Your task to perform on an android device: allow cookies in the chrome app Image 0: 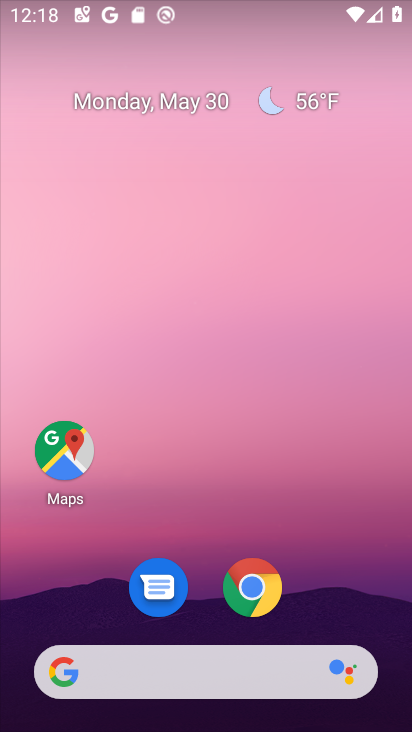
Step 0: click (243, 568)
Your task to perform on an android device: allow cookies in the chrome app Image 1: 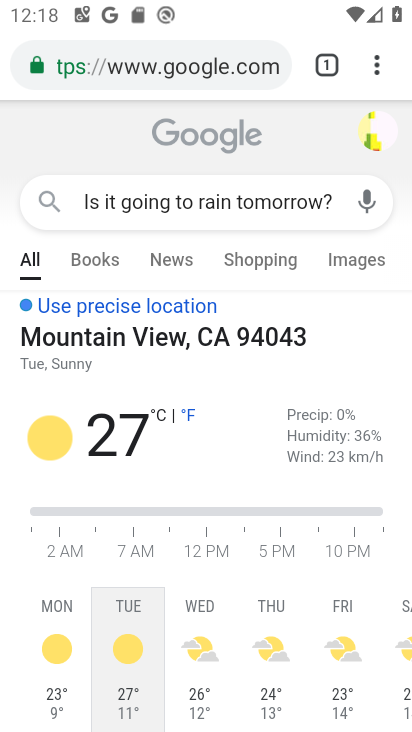
Step 1: click (374, 81)
Your task to perform on an android device: allow cookies in the chrome app Image 2: 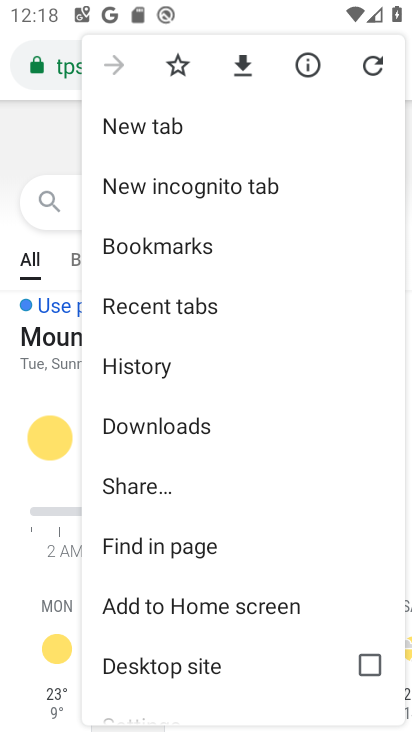
Step 2: drag from (247, 664) to (199, 208)
Your task to perform on an android device: allow cookies in the chrome app Image 3: 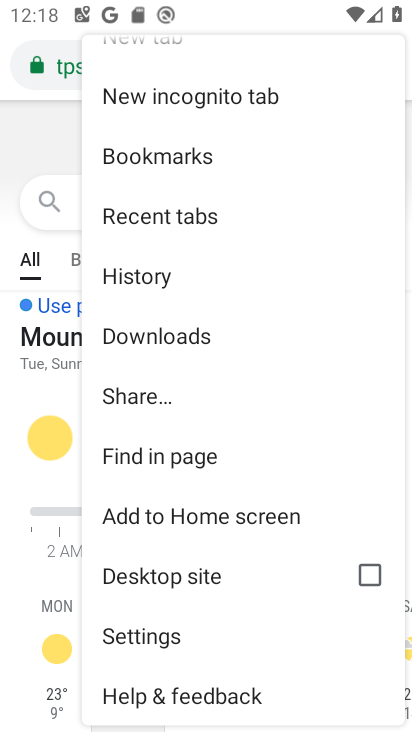
Step 3: click (207, 628)
Your task to perform on an android device: allow cookies in the chrome app Image 4: 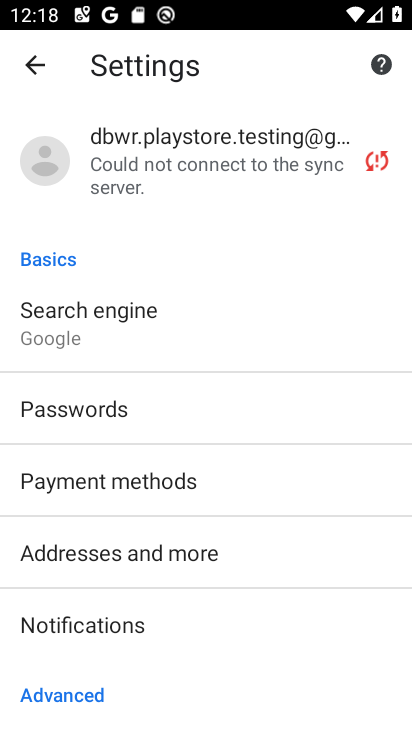
Step 4: drag from (215, 702) to (170, 291)
Your task to perform on an android device: allow cookies in the chrome app Image 5: 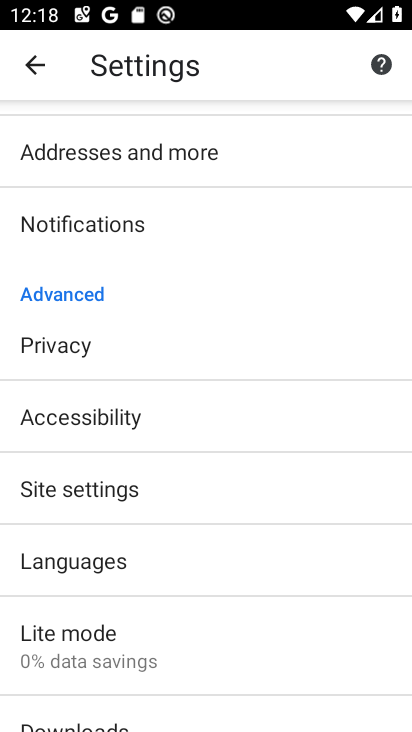
Step 5: click (138, 489)
Your task to perform on an android device: allow cookies in the chrome app Image 6: 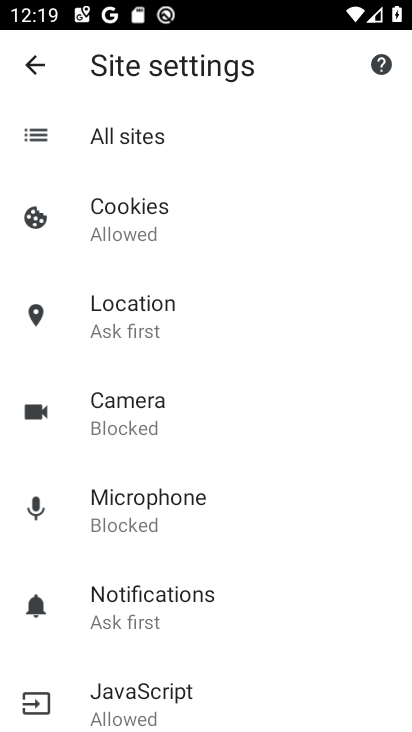
Step 6: click (152, 241)
Your task to perform on an android device: allow cookies in the chrome app Image 7: 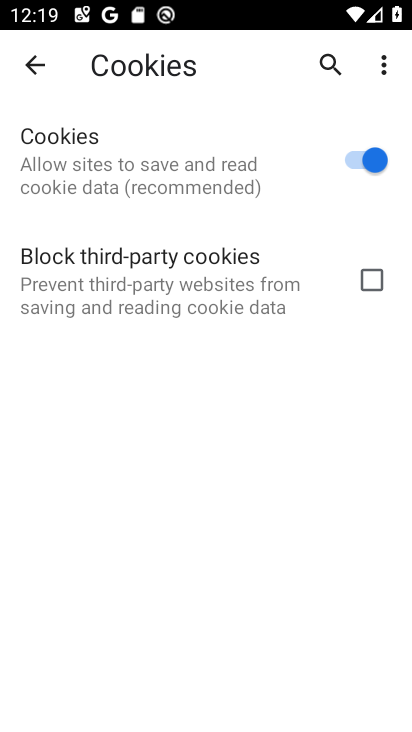
Step 7: task complete